Your task to perform on an android device: Turn on the flashlight Image 0: 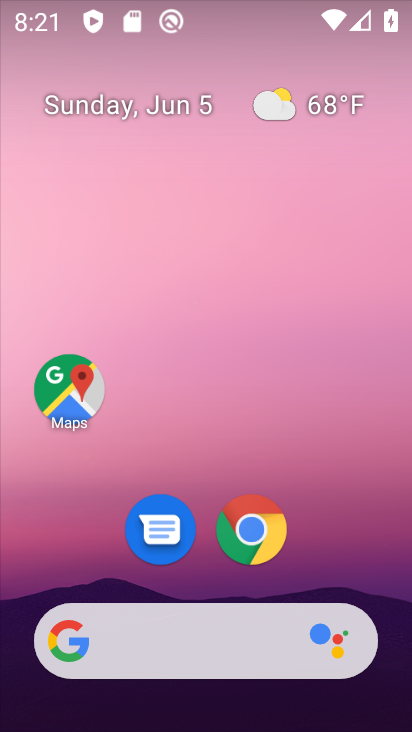
Step 0: drag from (256, 7) to (344, 699)
Your task to perform on an android device: Turn on the flashlight Image 1: 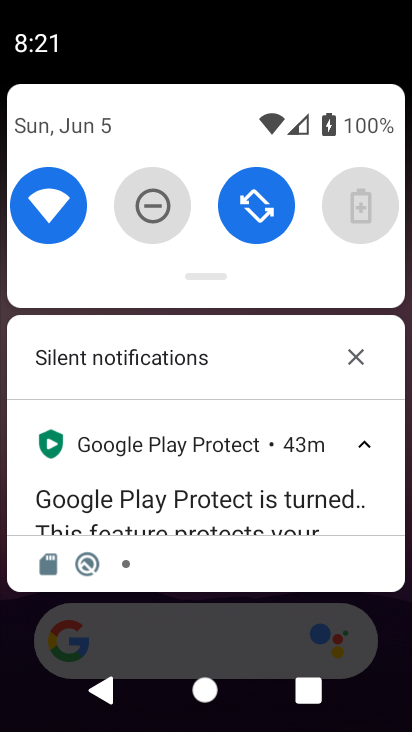
Step 1: task complete